Your task to perform on an android device: open sync settings in chrome Image 0: 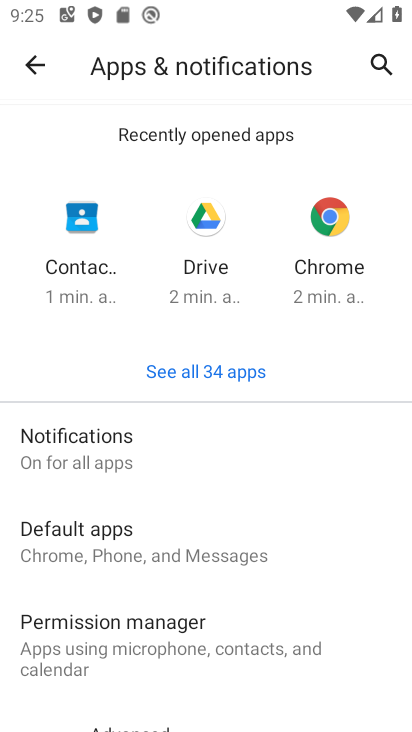
Step 0: press home button
Your task to perform on an android device: open sync settings in chrome Image 1: 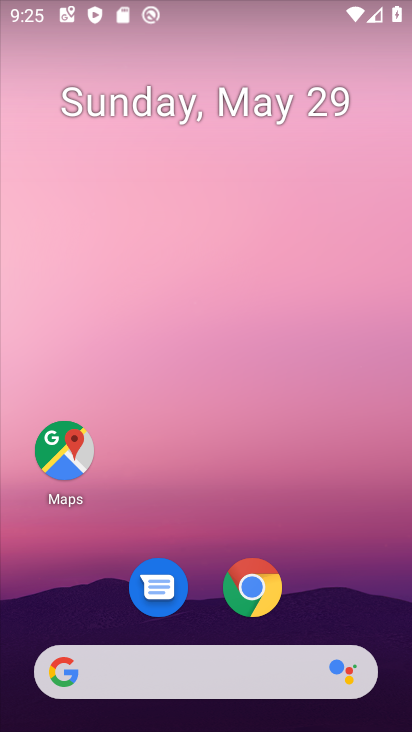
Step 1: click (259, 581)
Your task to perform on an android device: open sync settings in chrome Image 2: 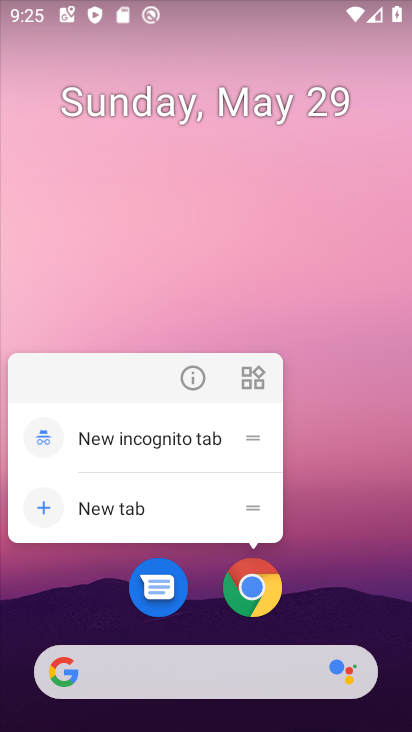
Step 2: click (242, 583)
Your task to perform on an android device: open sync settings in chrome Image 3: 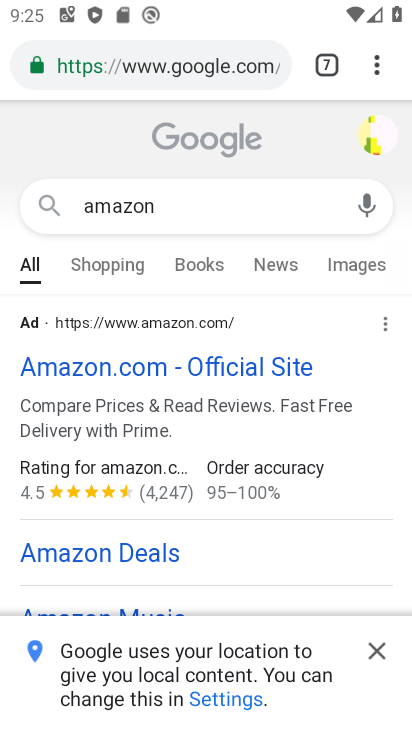
Step 3: drag from (381, 61) to (157, 626)
Your task to perform on an android device: open sync settings in chrome Image 4: 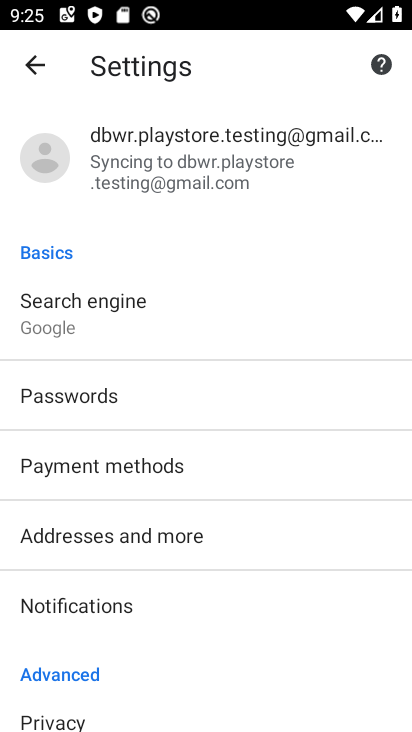
Step 4: click (149, 159)
Your task to perform on an android device: open sync settings in chrome Image 5: 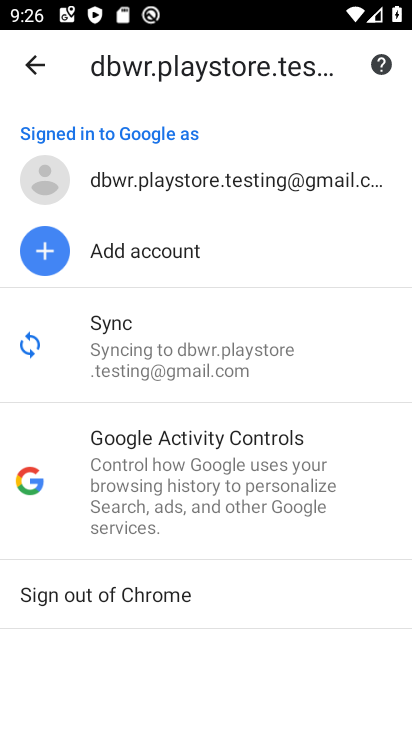
Step 5: task complete